Your task to perform on an android device: What's the weather like in Mexico City? Image 0: 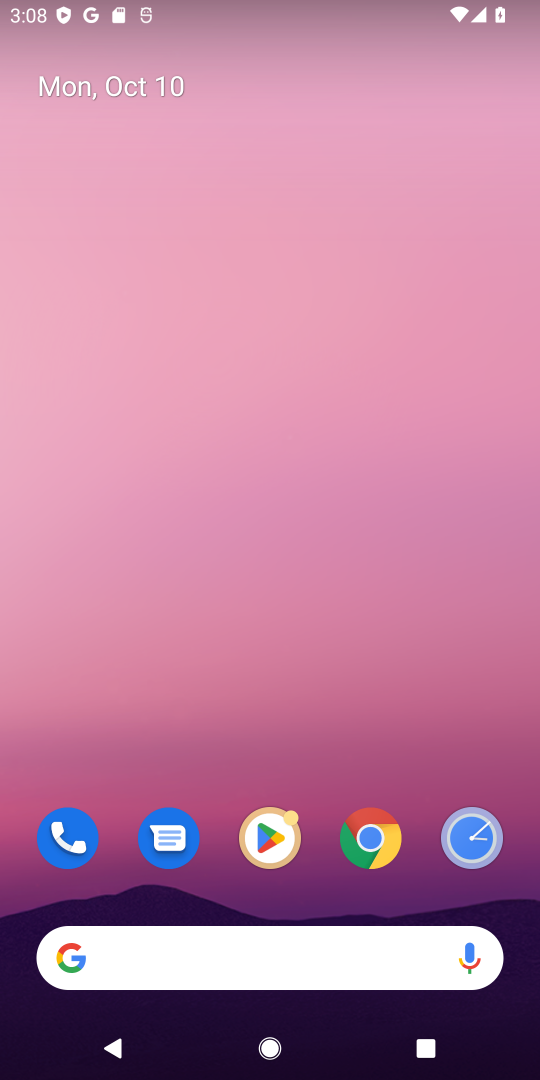
Step 0: click (277, 950)
Your task to perform on an android device: What's the weather like in Mexico City? Image 1: 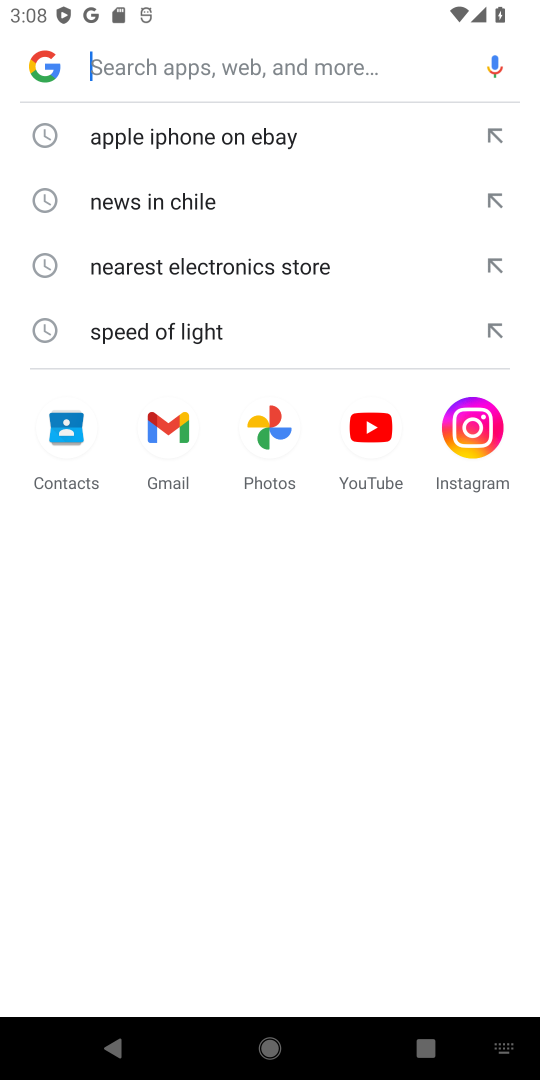
Step 1: type "weather like in Mexico City"
Your task to perform on an android device: What's the weather like in Mexico City? Image 2: 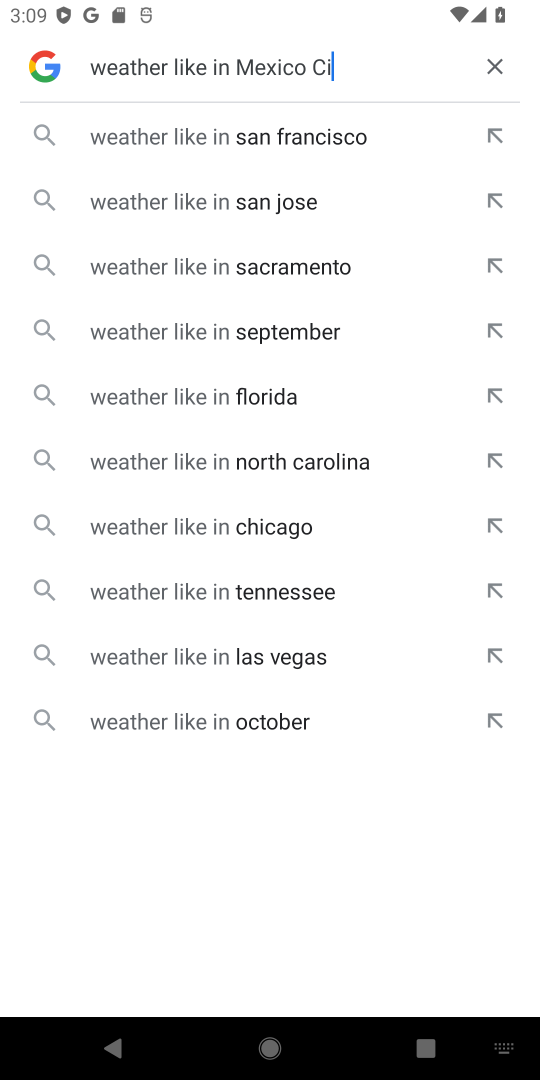
Step 2: type ""
Your task to perform on an android device: What's the weather like in Mexico City? Image 3: 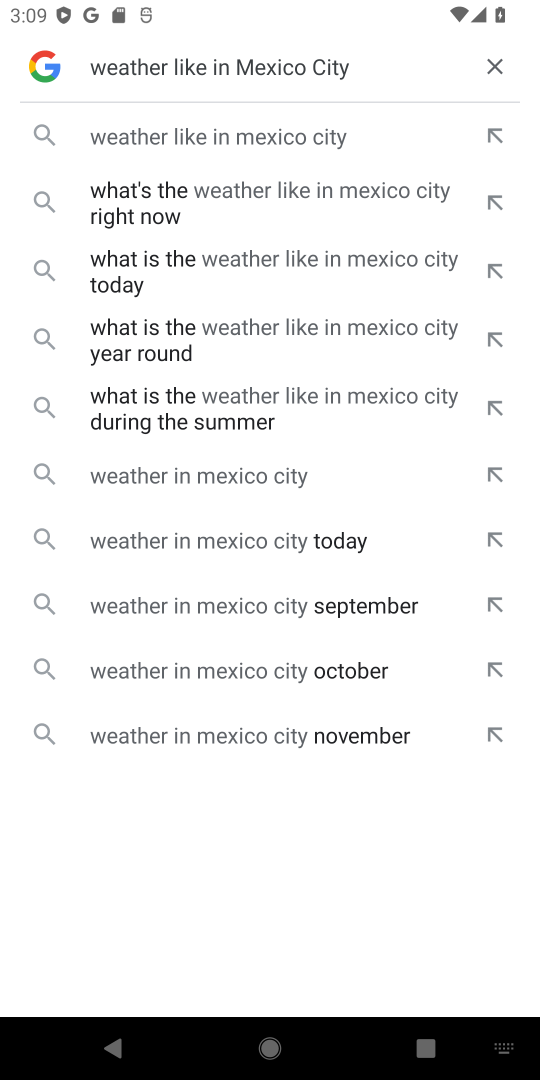
Step 3: click (165, 150)
Your task to perform on an android device: What's the weather like in Mexico City? Image 4: 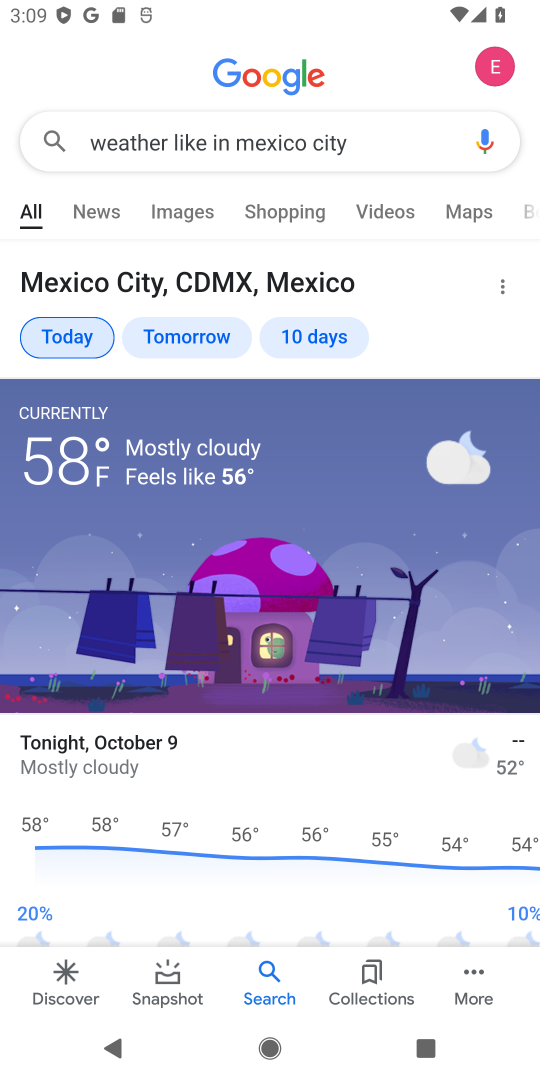
Step 4: task complete